Your task to perform on an android device: Search for pizza restaurants on Maps Image 0: 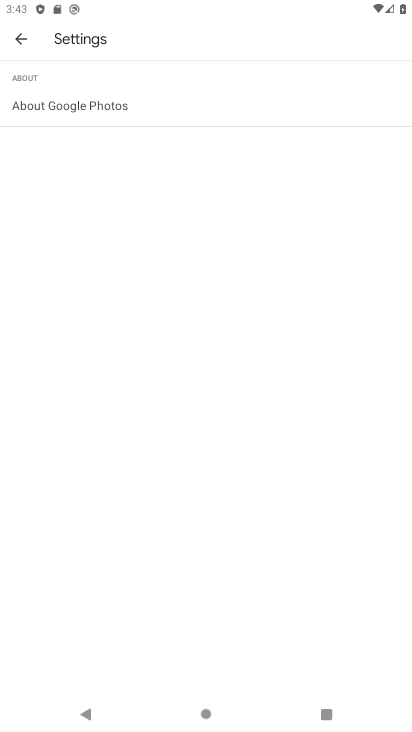
Step 0: press back button
Your task to perform on an android device: Search for pizza restaurants on Maps Image 1: 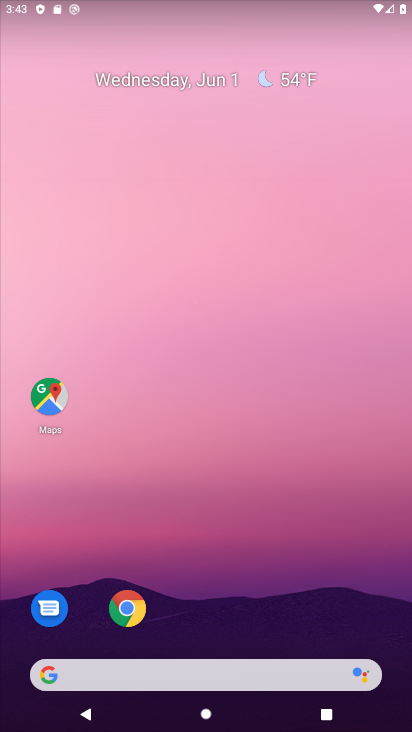
Step 1: click (44, 409)
Your task to perform on an android device: Search for pizza restaurants on Maps Image 2: 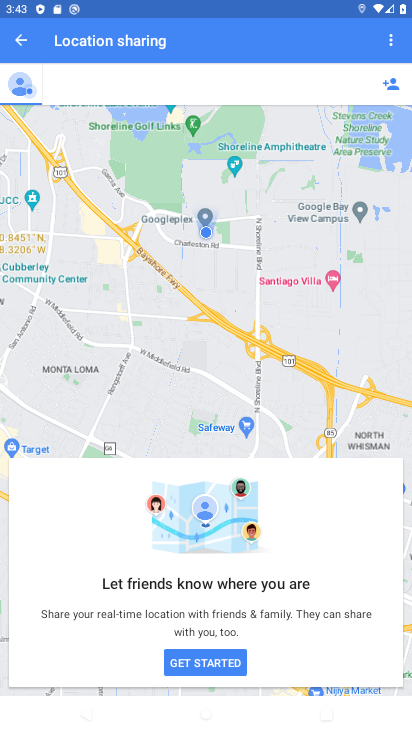
Step 2: click (191, 92)
Your task to perform on an android device: Search for pizza restaurants on Maps Image 3: 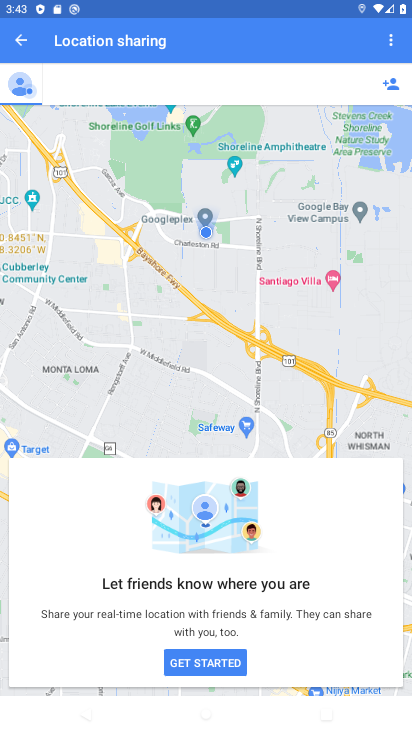
Step 3: click (25, 41)
Your task to perform on an android device: Search for pizza restaurants on Maps Image 4: 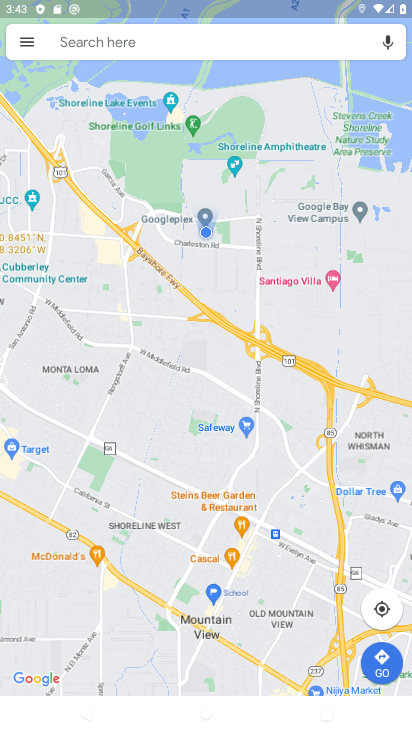
Step 4: click (167, 42)
Your task to perform on an android device: Search for pizza restaurants on Maps Image 5: 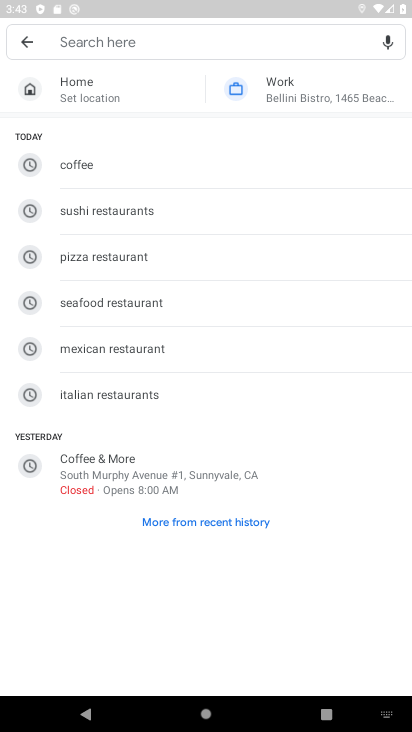
Step 5: click (136, 270)
Your task to perform on an android device: Search for pizza restaurants on Maps Image 6: 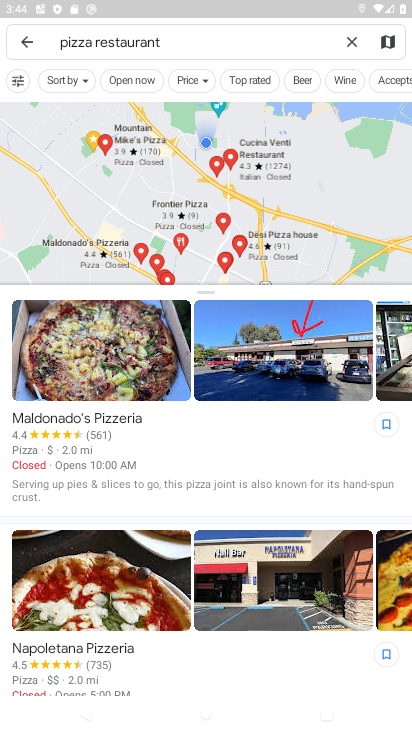
Step 6: task complete